Your task to perform on an android device: Show the shopping cart on amazon.com. Add razer naga to the cart on amazon.com, then select checkout. Image 0: 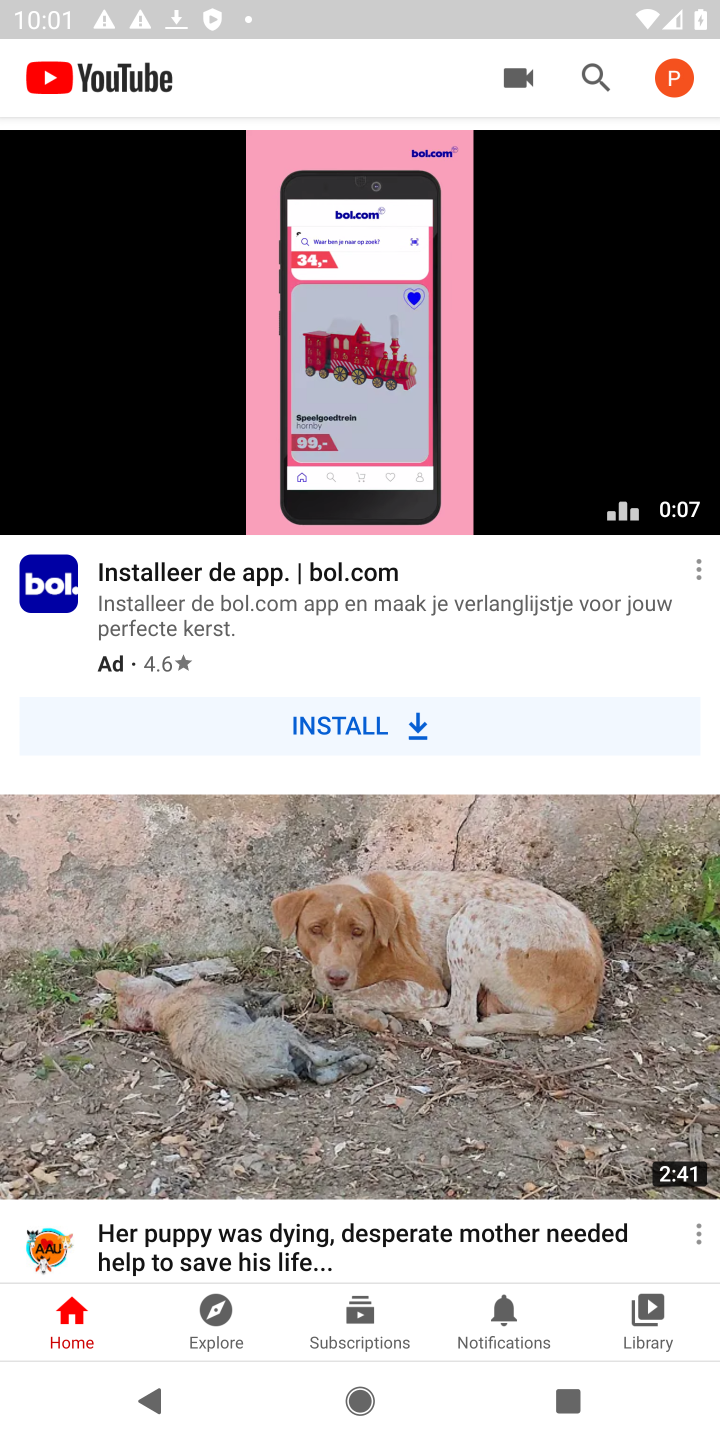
Step 0: press home button
Your task to perform on an android device: Show the shopping cart on amazon.com. Add razer naga to the cart on amazon.com, then select checkout. Image 1: 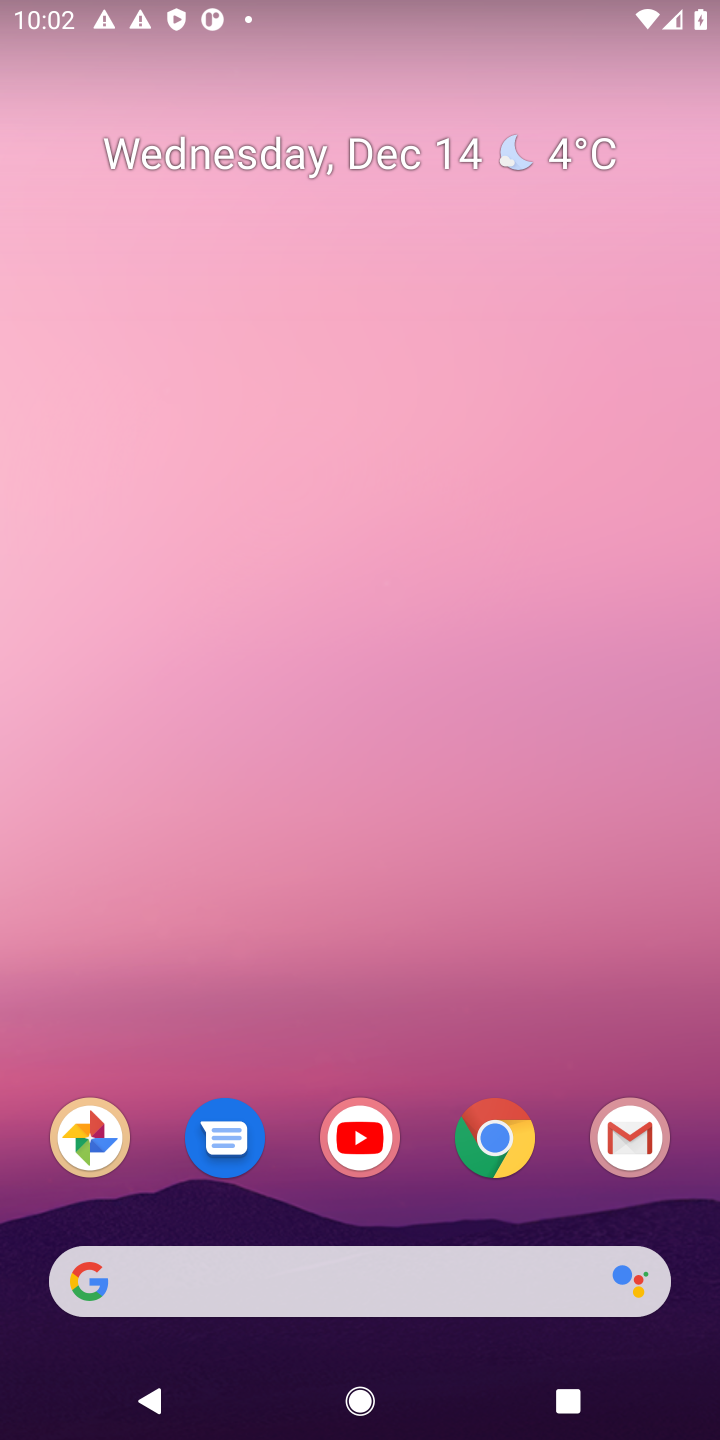
Step 1: click (495, 1144)
Your task to perform on an android device: Show the shopping cart on amazon.com. Add razer naga to the cart on amazon.com, then select checkout. Image 2: 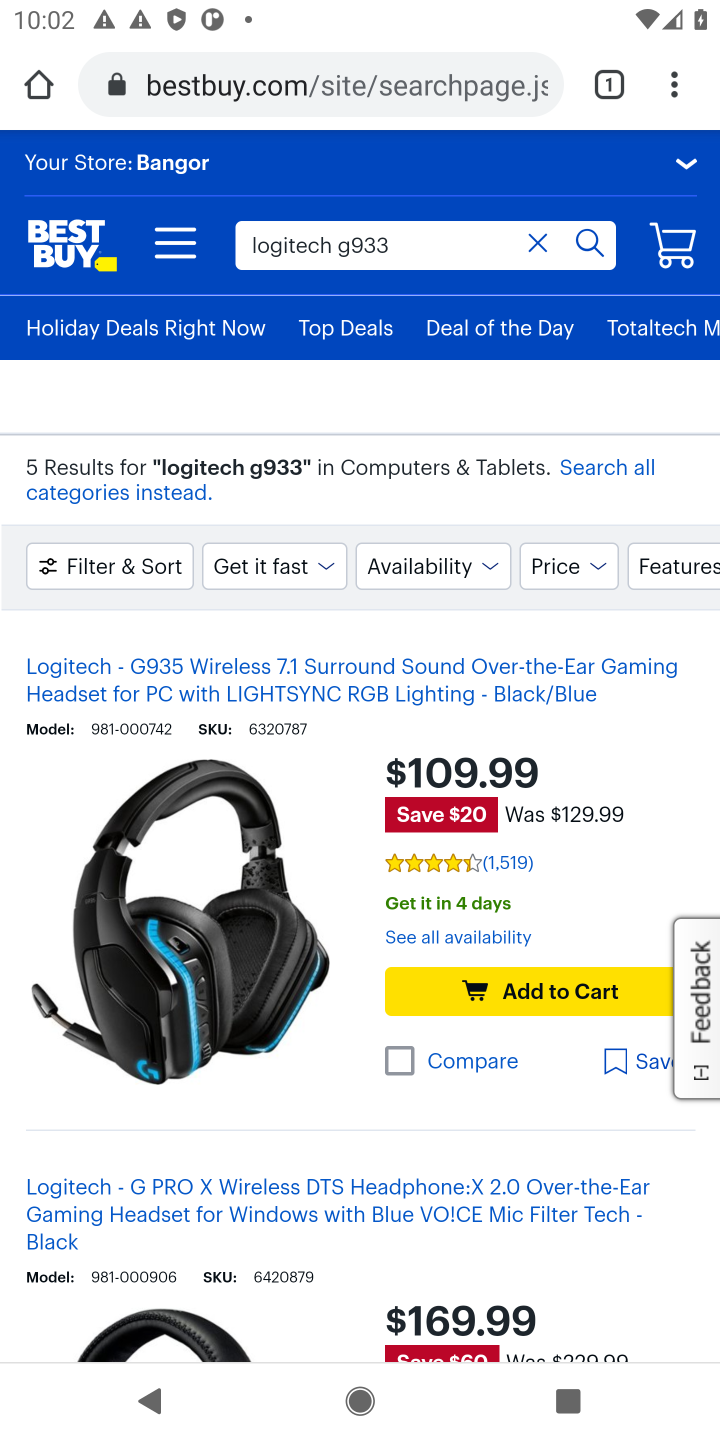
Step 2: click (363, 85)
Your task to perform on an android device: Show the shopping cart on amazon.com. Add razer naga to the cart on amazon.com, then select checkout. Image 3: 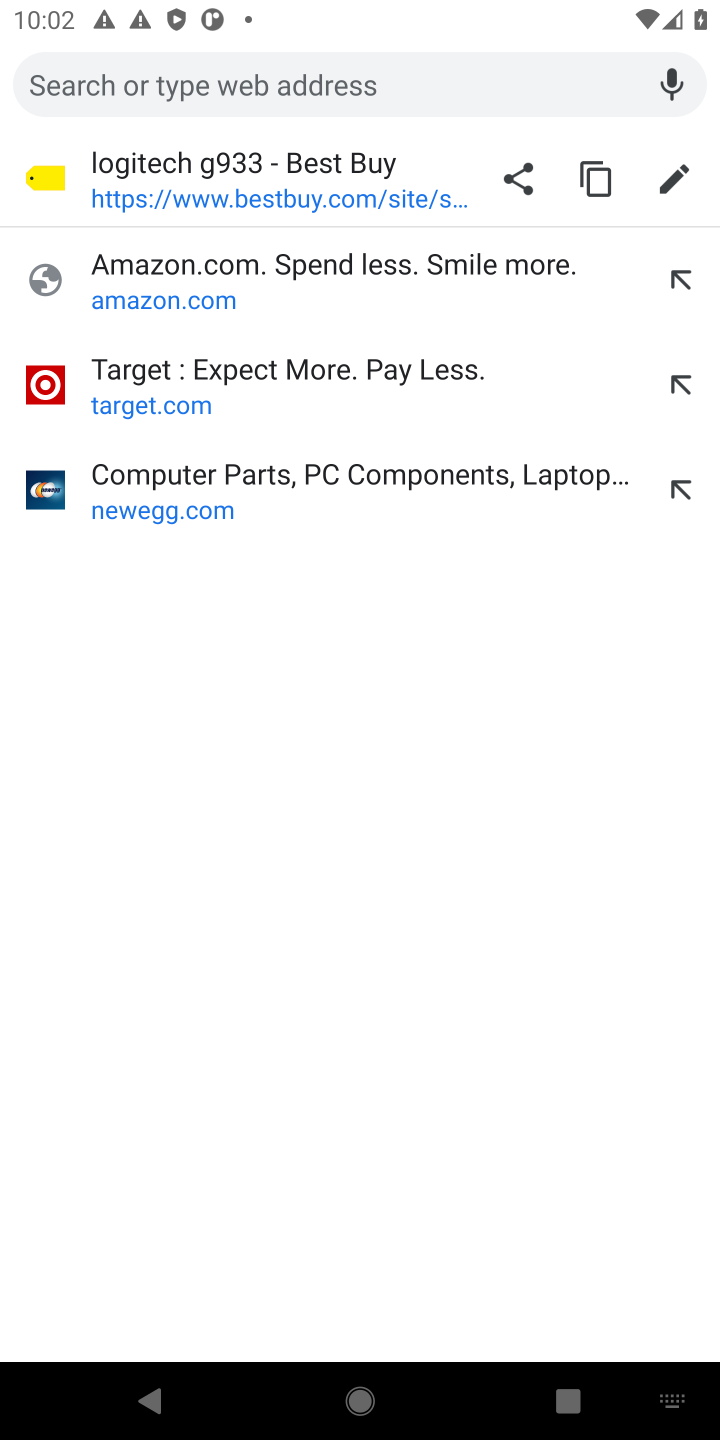
Step 3: click (166, 285)
Your task to perform on an android device: Show the shopping cart on amazon.com. Add razer naga to the cart on amazon.com, then select checkout. Image 4: 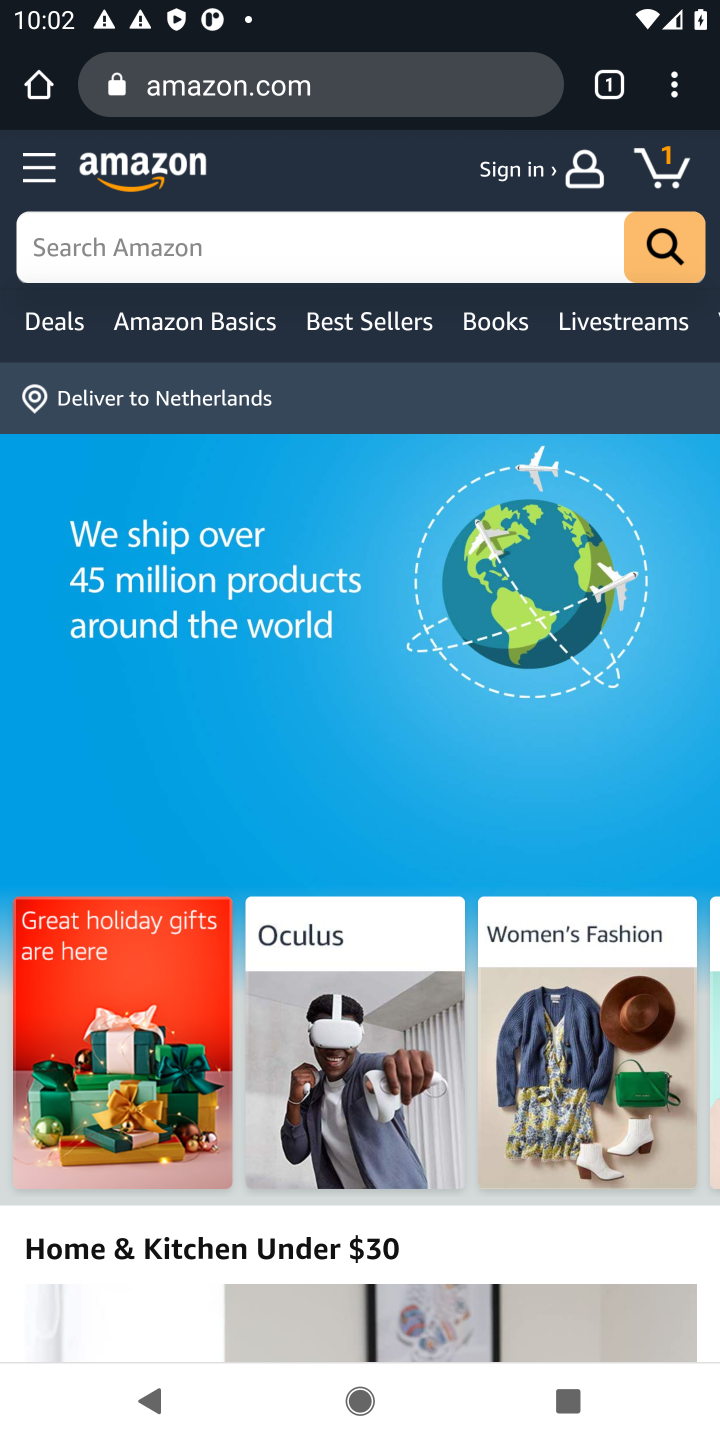
Step 4: click (660, 182)
Your task to perform on an android device: Show the shopping cart on amazon.com. Add razer naga to the cart on amazon.com, then select checkout. Image 5: 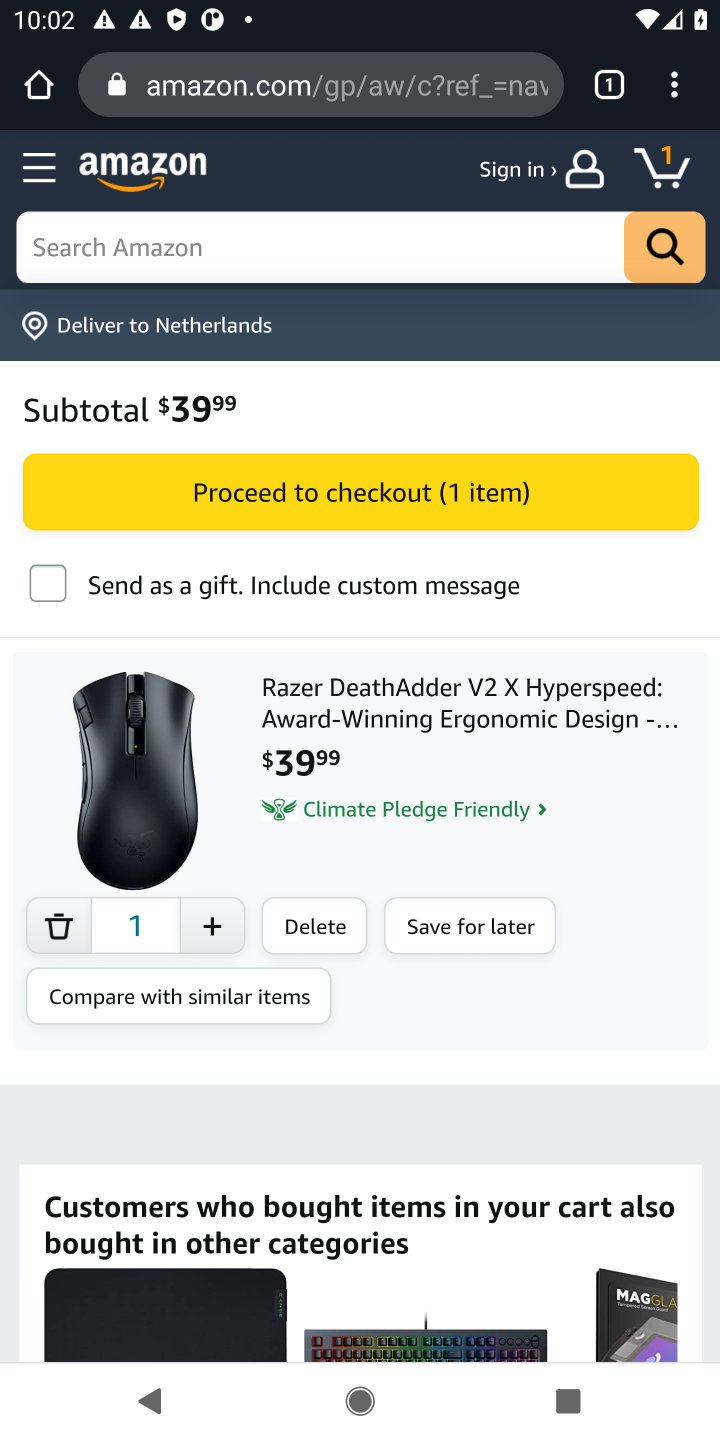
Step 5: click (105, 233)
Your task to perform on an android device: Show the shopping cart on amazon.com. Add razer naga to the cart on amazon.com, then select checkout. Image 6: 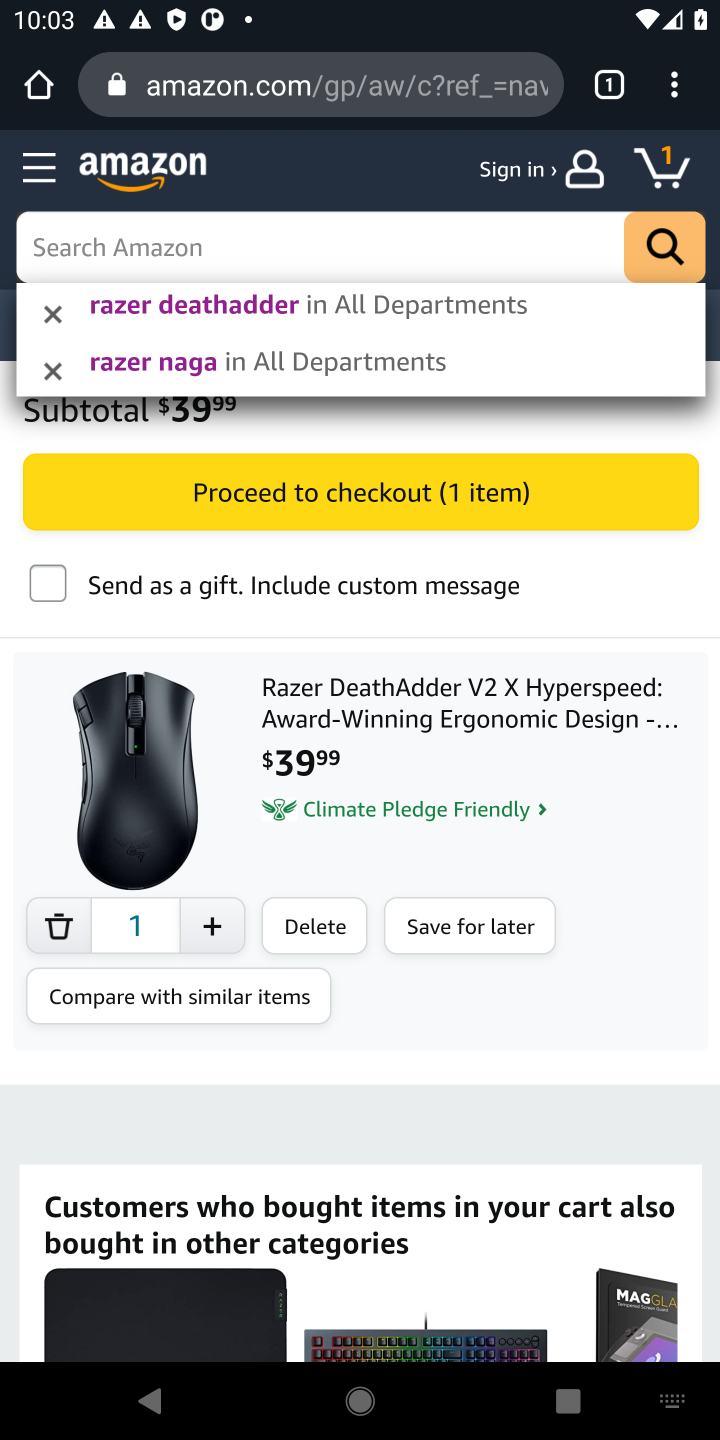
Step 6: type " razer naga"
Your task to perform on an android device: Show the shopping cart on amazon.com. Add razer naga to the cart on amazon.com, then select checkout. Image 7: 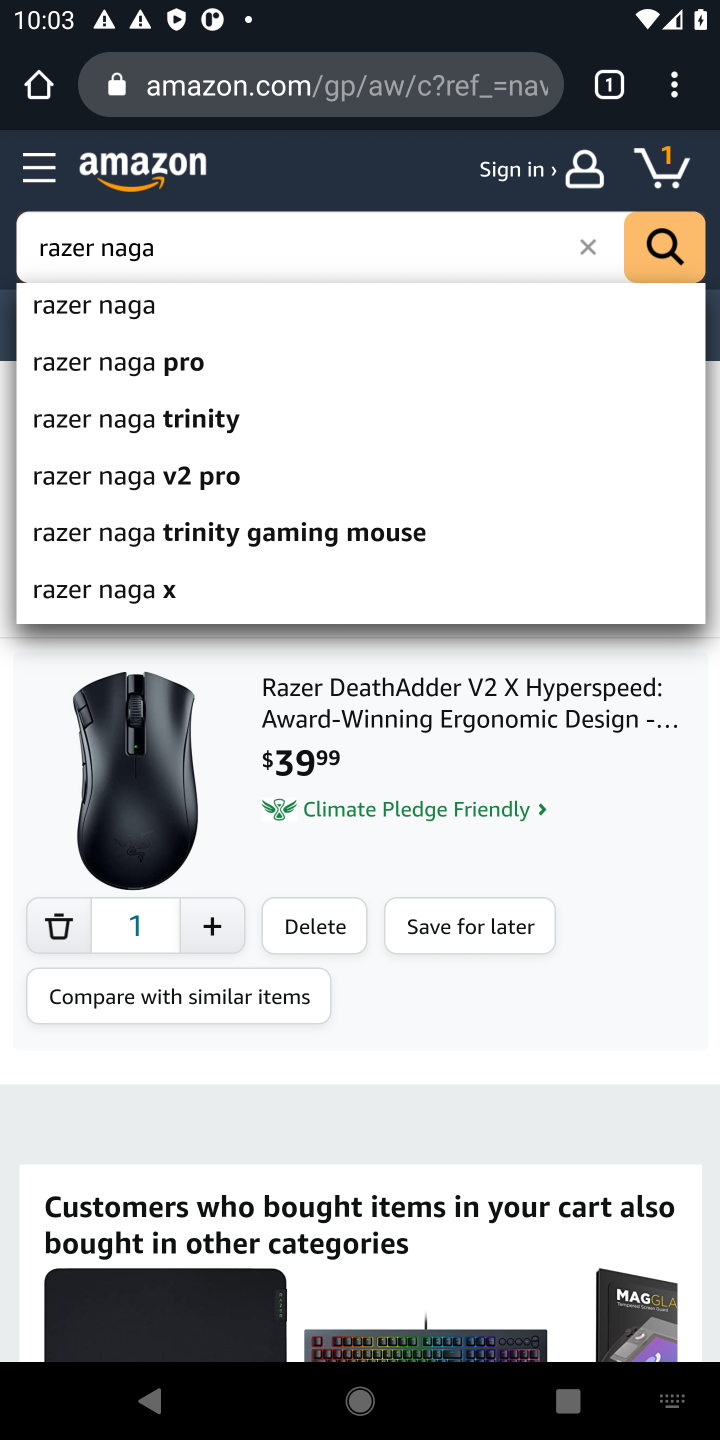
Step 7: click (104, 319)
Your task to perform on an android device: Show the shopping cart on amazon.com. Add razer naga to the cart on amazon.com, then select checkout. Image 8: 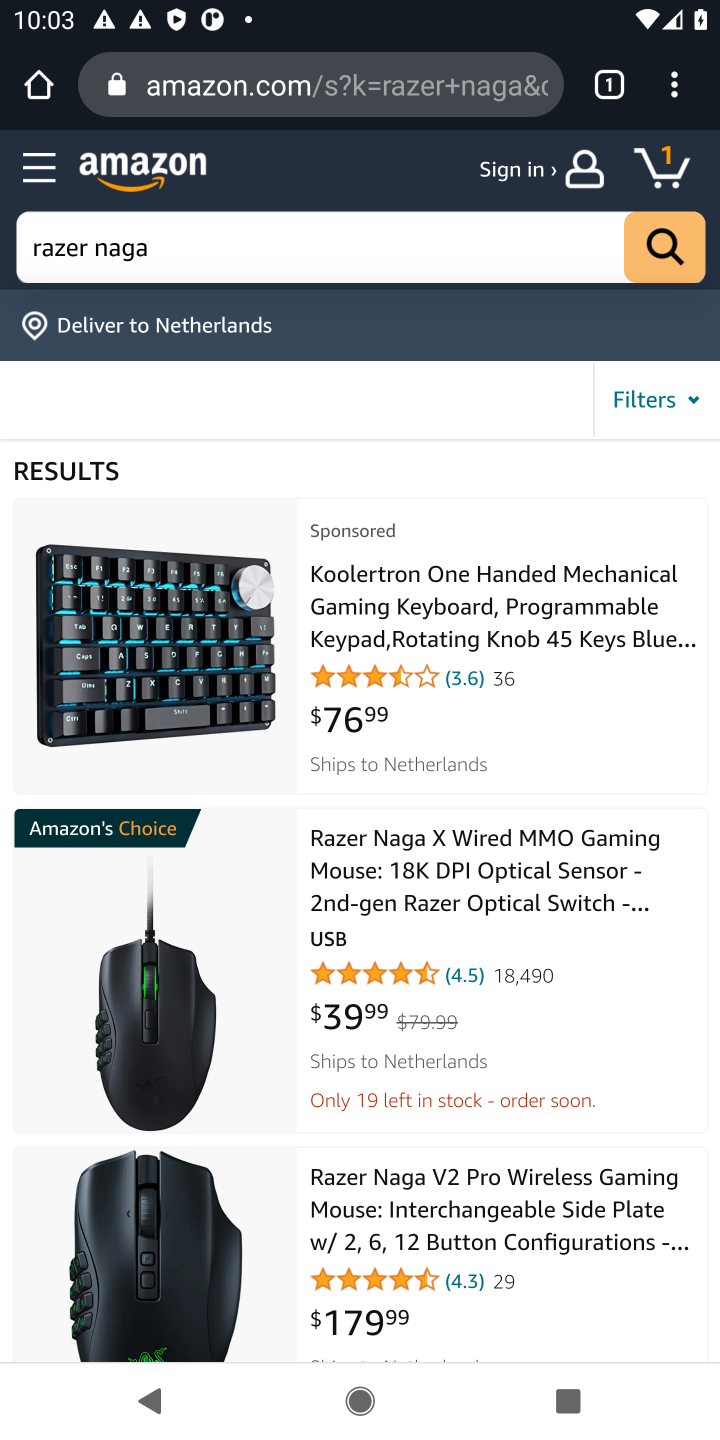
Step 8: click (382, 903)
Your task to perform on an android device: Show the shopping cart on amazon.com. Add razer naga to the cart on amazon.com, then select checkout. Image 9: 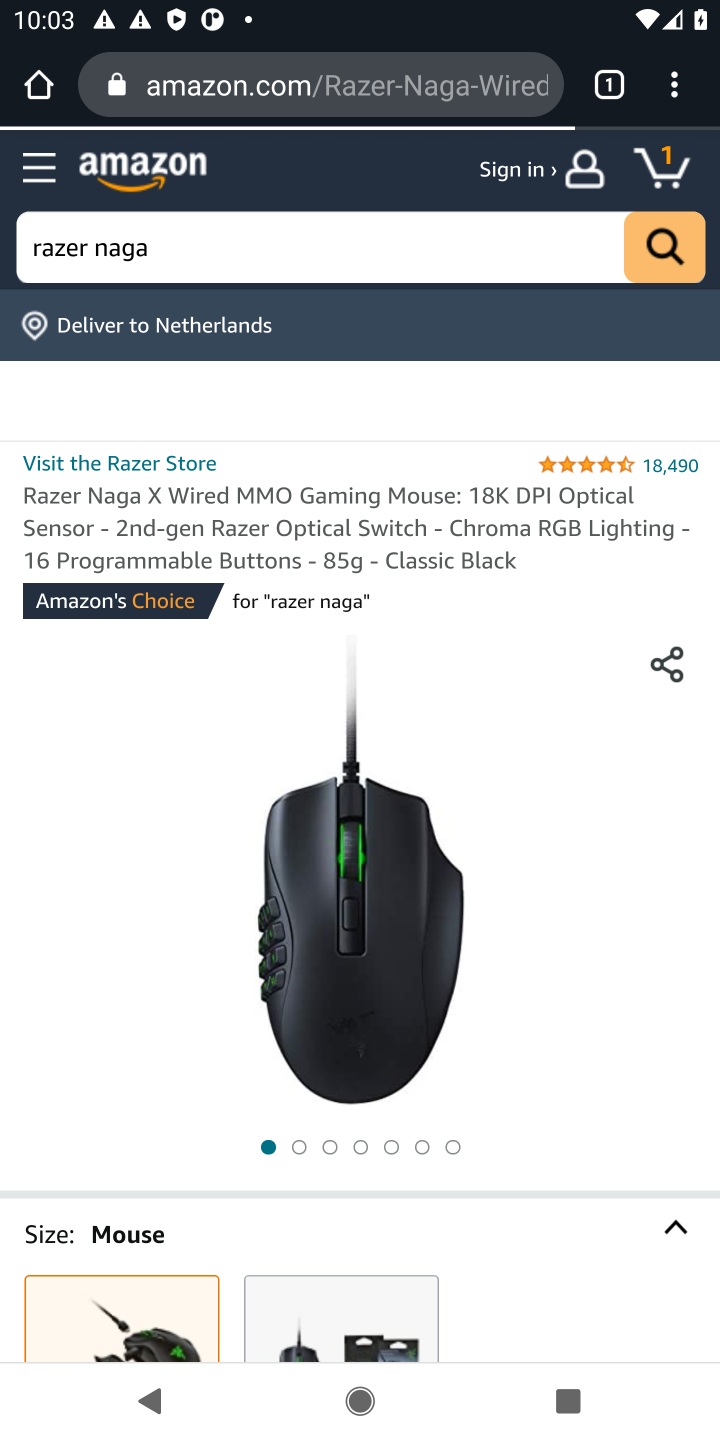
Step 9: drag from (507, 990) to (443, 547)
Your task to perform on an android device: Show the shopping cart on amazon.com. Add razer naga to the cart on amazon.com, then select checkout. Image 10: 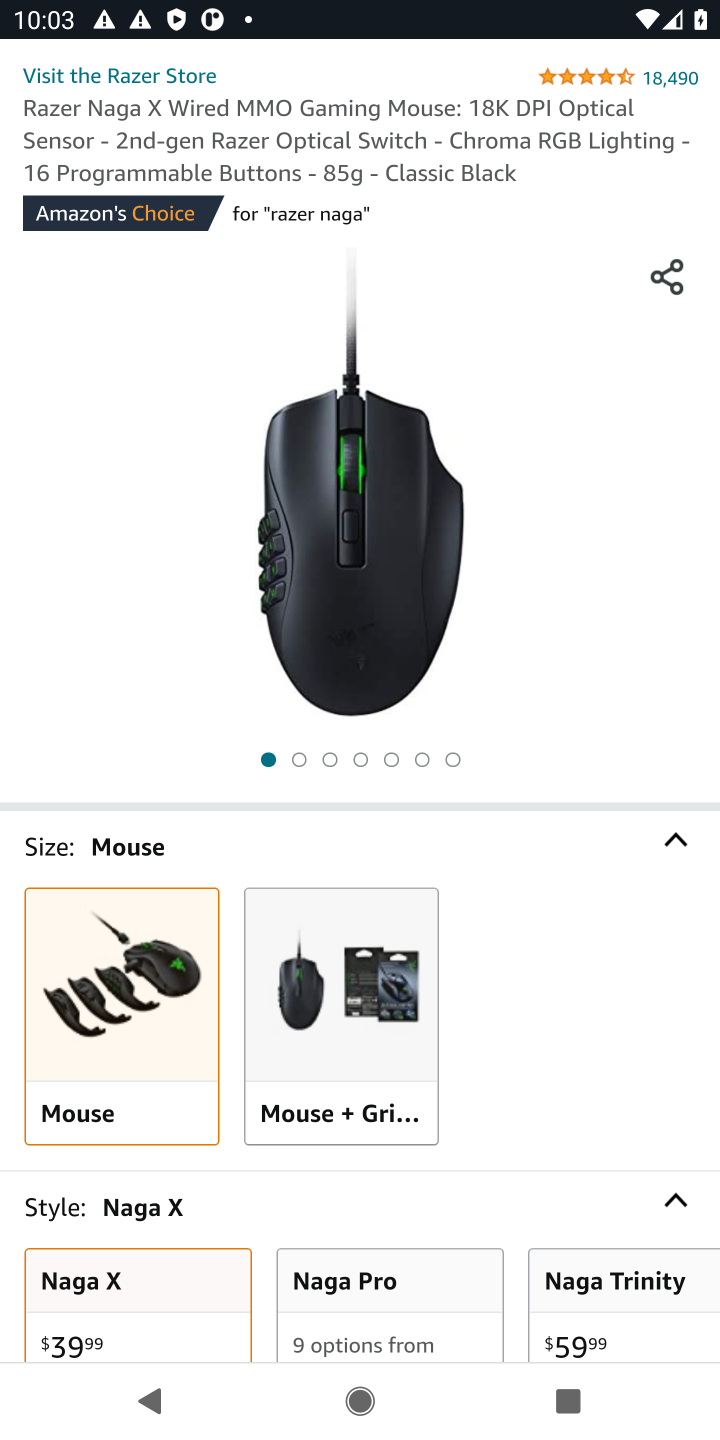
Step 10: drag from (496, 1043) to (483, 526)
Your task to perform on an android device: Show the shopping cart on amazon.com. Add razer naga to the cart on amazon.com, then select checkout. Image 11: 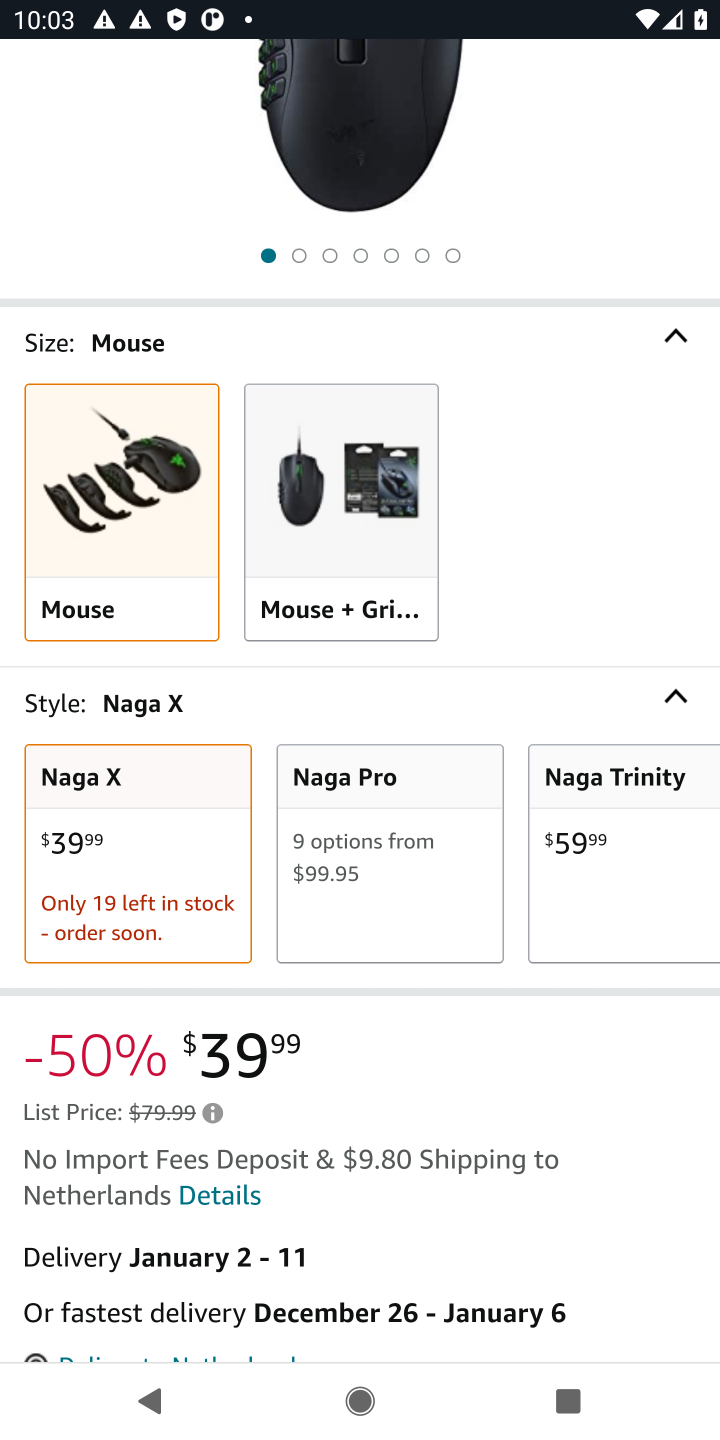
Step 11: drag from (414, 1018) to (387, 510)
Your task to perform on an android device: Show the shopping cart on amazon.com. Add razer naga to the cart on amazon.com, then select checkout. Image 12: 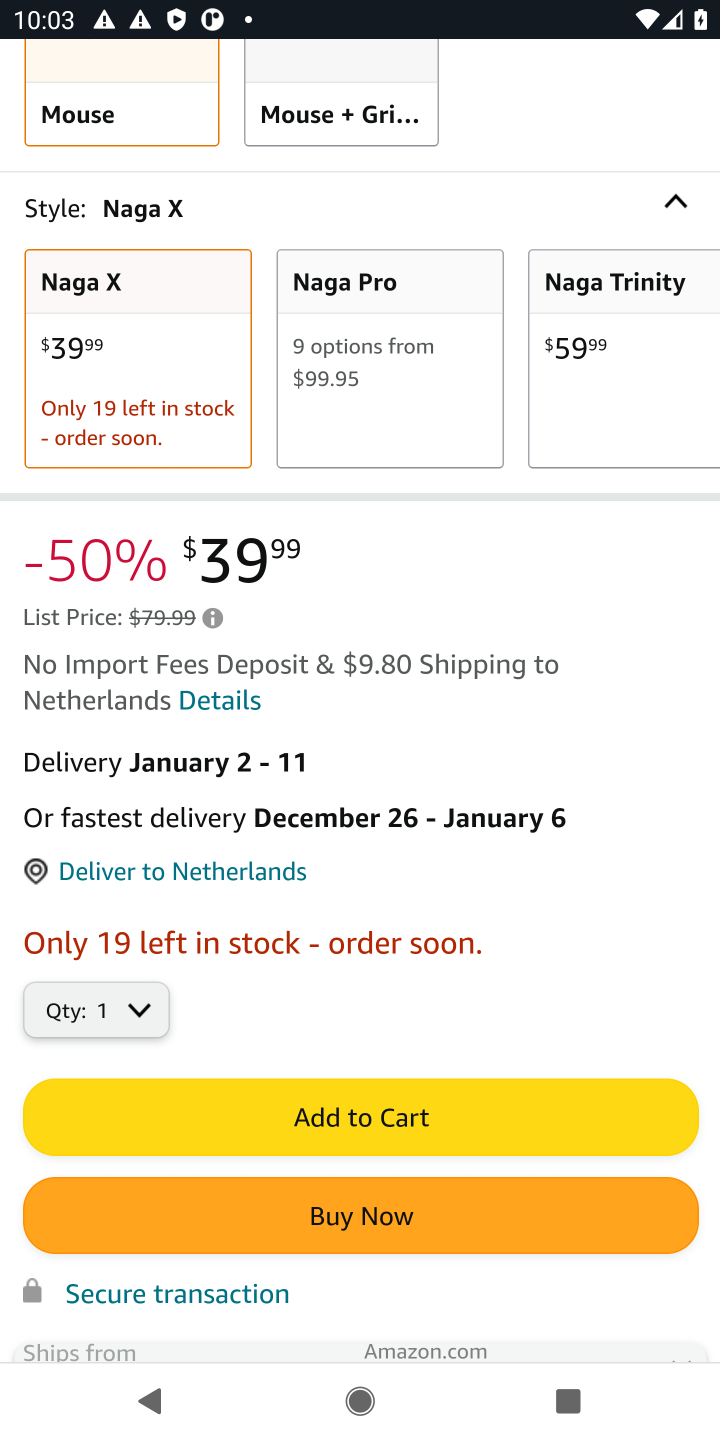
Step 12: click (338, 1120)
Your task to perform on an android device: Show the shopping cart on amazon.com. Add razer naga to the cart on amazon.com, then select checkout. Image 13: 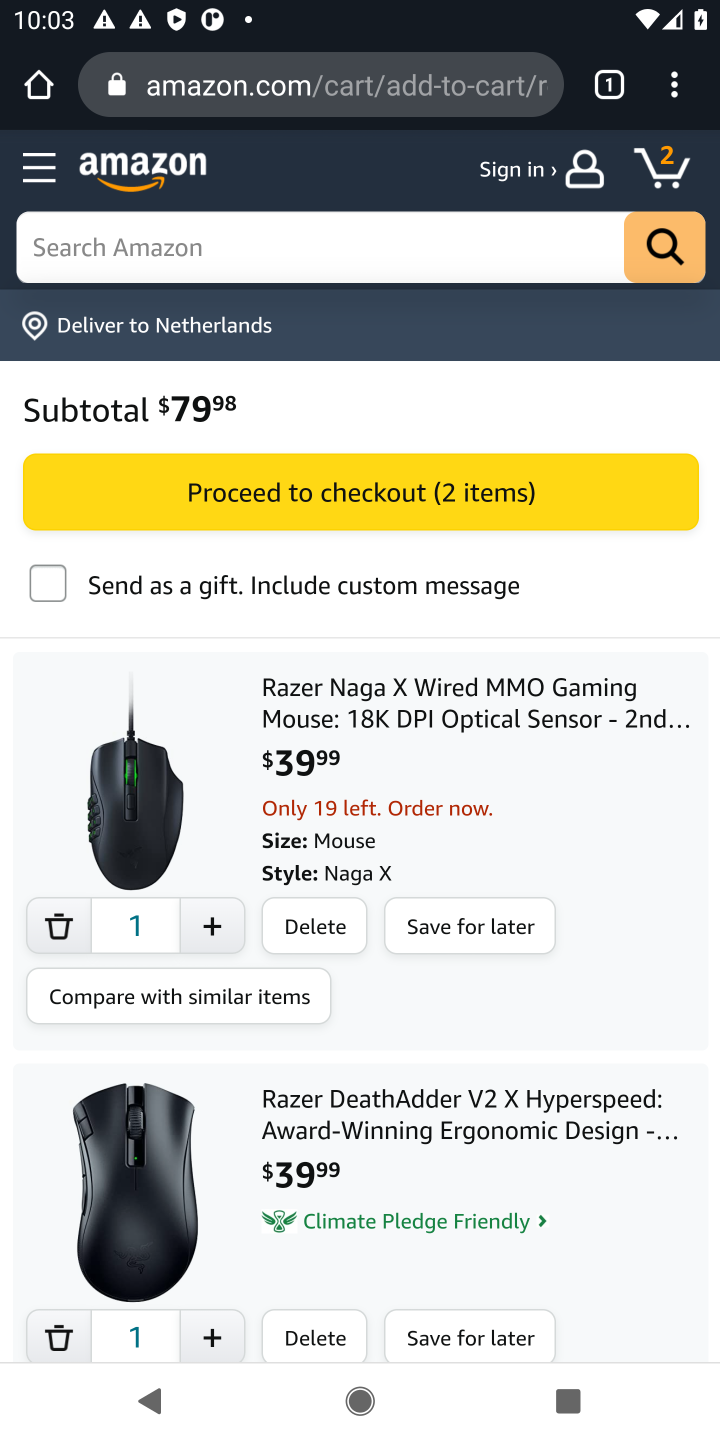
Step 13: click (333, 488)
Your task to perform on an android device: Show the shopping cart on amazon.com. Add razer naga to the cart on amazon.com, then select checkout. Image 14: 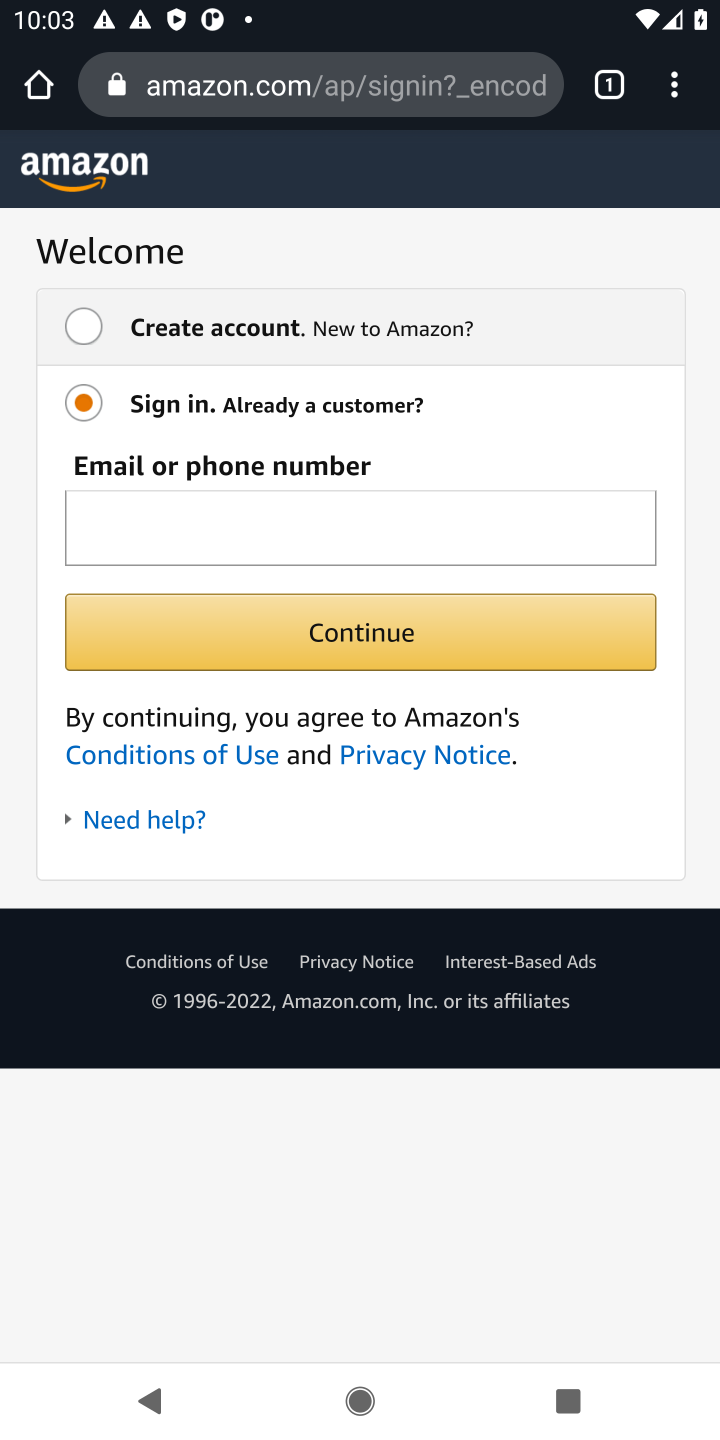
Step 14: task complete